Your task to perform on an android device: allow cookies in the chrome app Image 0: 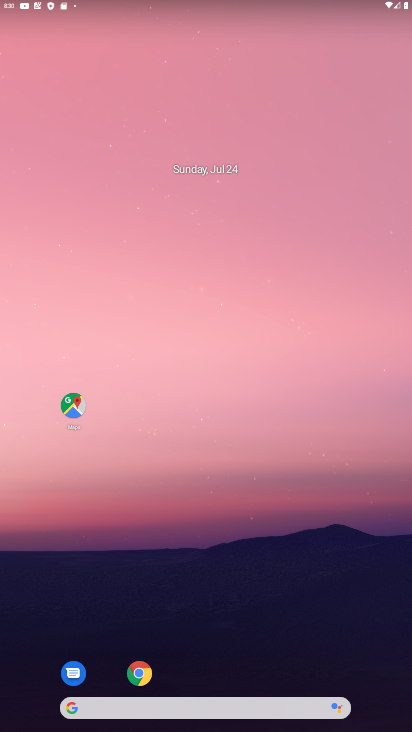
Step 0: click (139, 676)
Your task to perform on an android device: allow cookies in the chrome app Image 1: 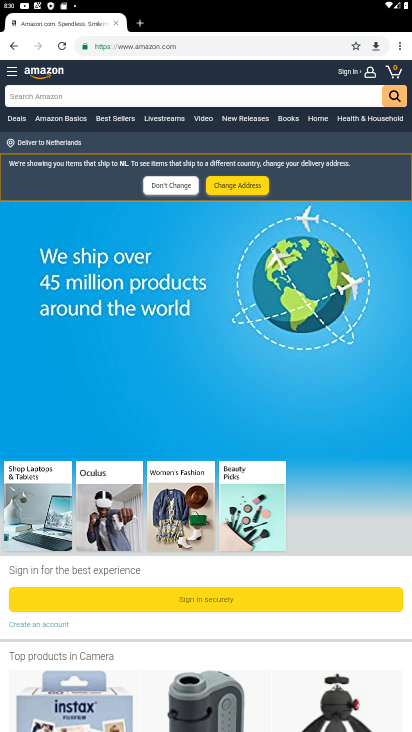
Step 1: click (124, 42)
Your task to perform on an android device: allow cookies in the chrome app Image 2: 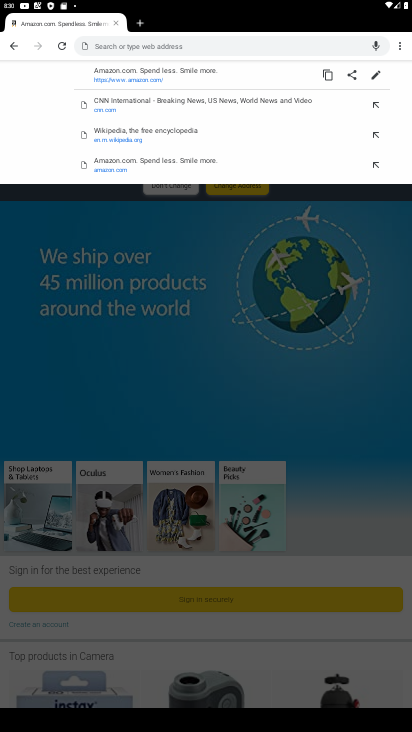
Step 2: click (400, 45)
Your task to perform on an android device: allow cookies in the chrome app Image 3: 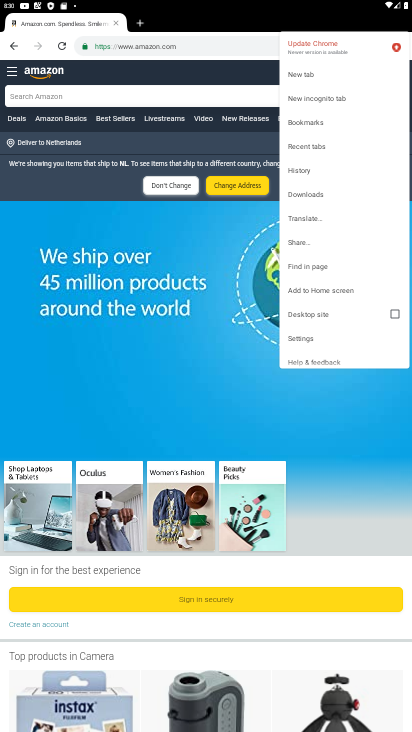
Step 3: click (296, 340)
Your task to perform on an android device: allow cookies in the chrome app Image 4: 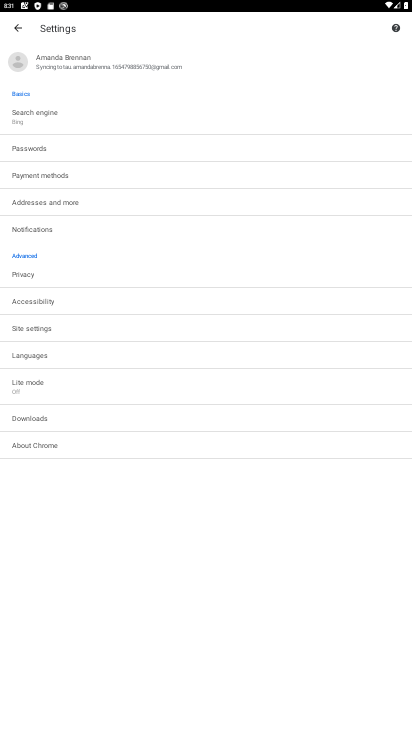
Step 4: click (37, 162)
Your task to perform on an android device: allow cookies in the chrome app Image 5: 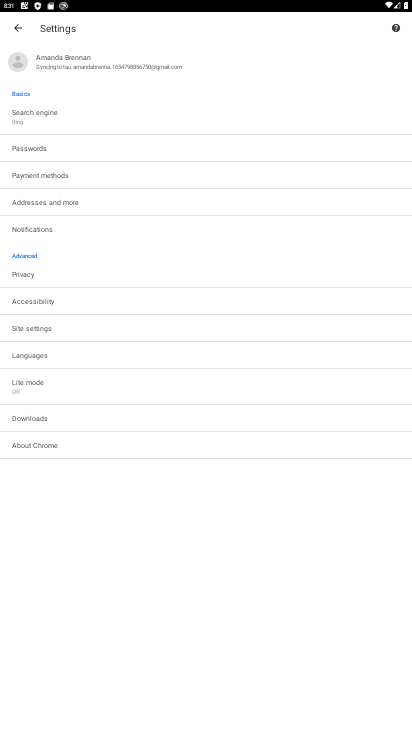
Step 5: click (29, 327)
Your task to perform on an android device: allow cookies in the chrome app Image 6: 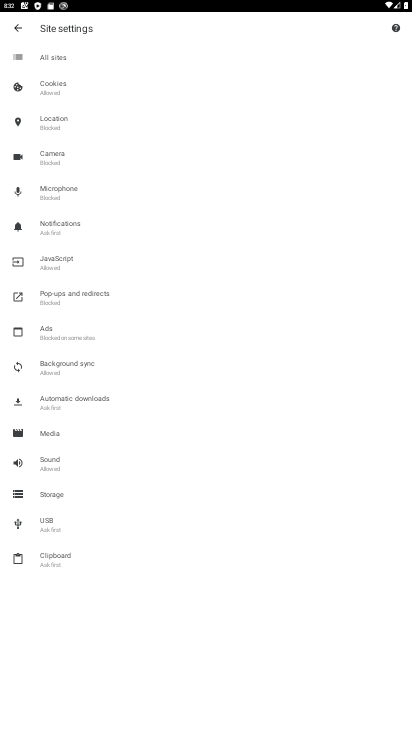
Step 6: click (53, 95)
Your task to perform on an android device: allow cookies in the chrome app Image 7: 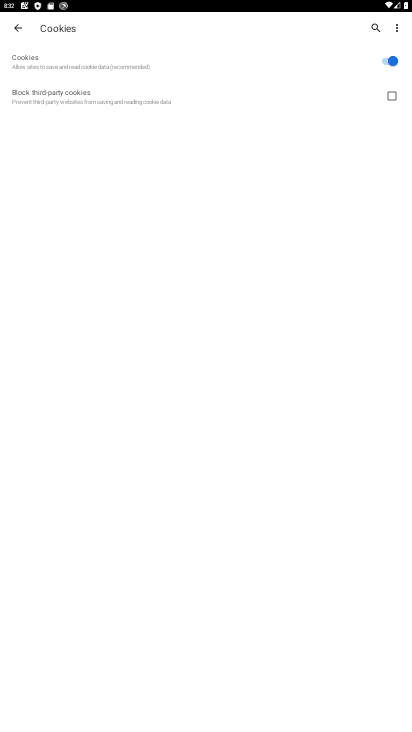
Step 7: task complete